Your task to perform on an android device: find photos in the google photos app Image 0: 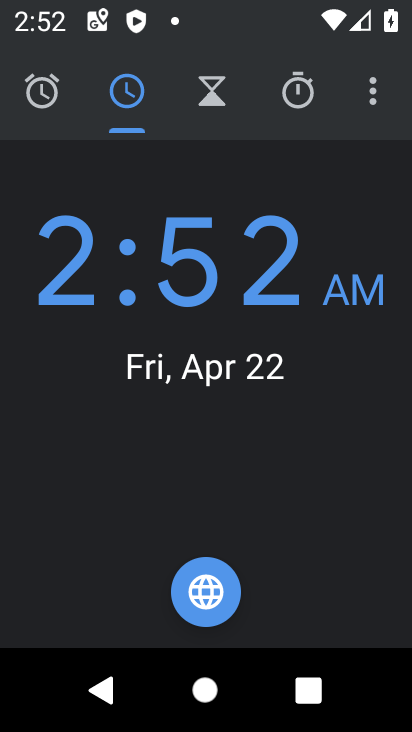
Step 0: press home button
Your task to perform on an android device: find photos in the google photos app Image 1: 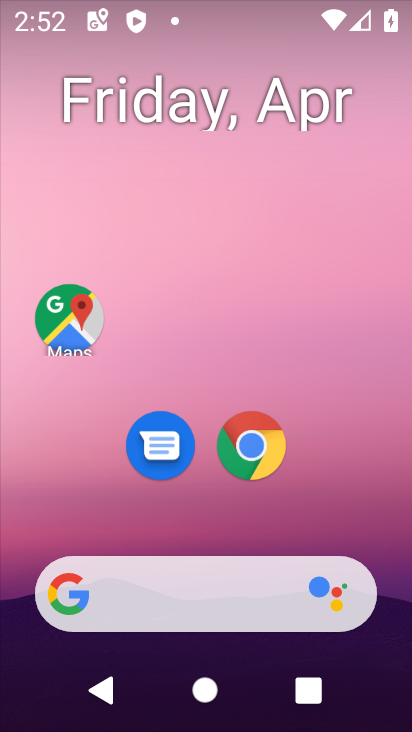
Step 1: drag from (325, 422) to (317, 90)
Your task to perform on an android device: find photos in the google photos app Image 2: 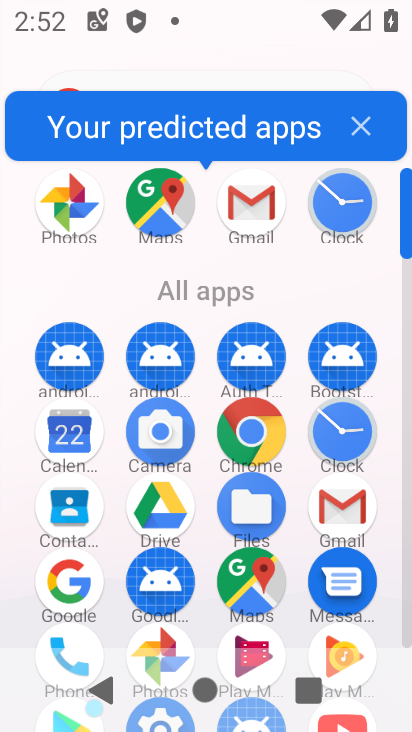
Step 2: click (69, 206)
Your task to perform on an android device: find photos in the google photos app Image 3: 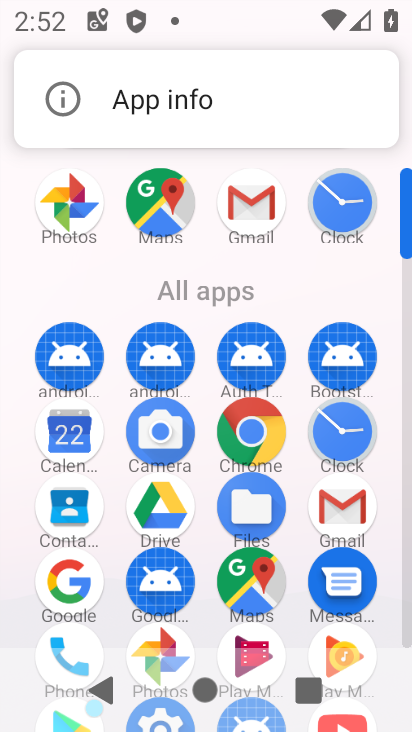
Step 3: click (69, 206)
Your task to perform on an android device: find photos in the google photos app Image 4: 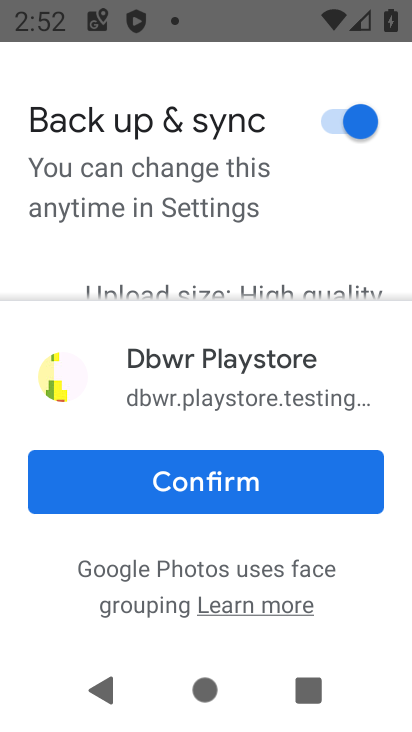
Step 4: click (259, 482)
Your task to perform on an android device: find photos in the google photos app Image 5: 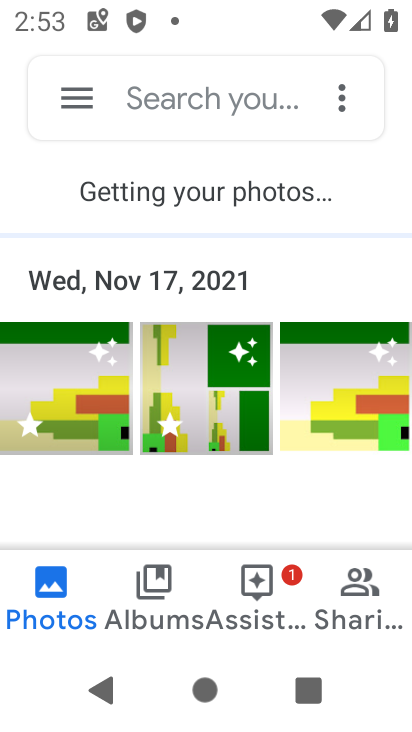
Step 5: task complete